Your task to perform on an android device: Do I have any events this weekend? Image 0: 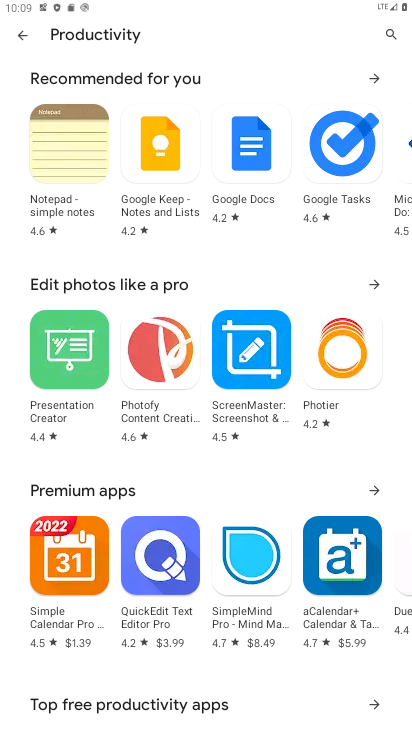
Step 0: press home button
Your task to perform on an android device: Do I have any events this weekend? Image 1: 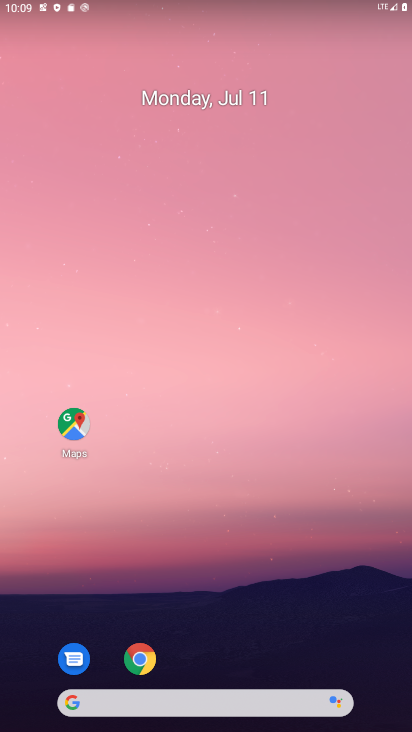
Step 1: drag from (204, 607) to (190, 94)
Your task to perform on an android device: Do I have any events this weekend? Image 2: 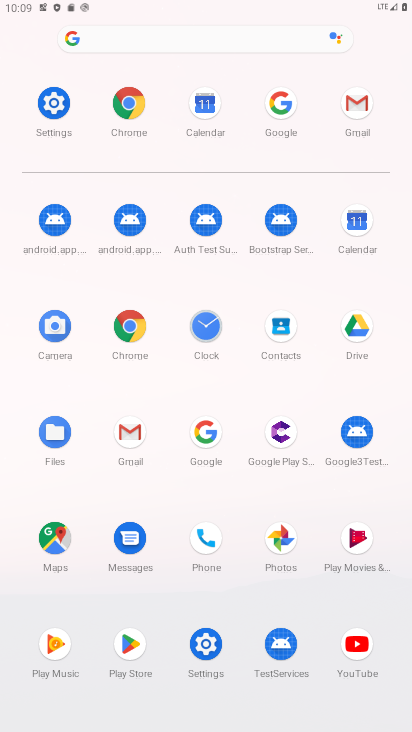
Step 2: click (363, 228)
Your task to perform on an android device: Do I have any events this weekend? Image 3: 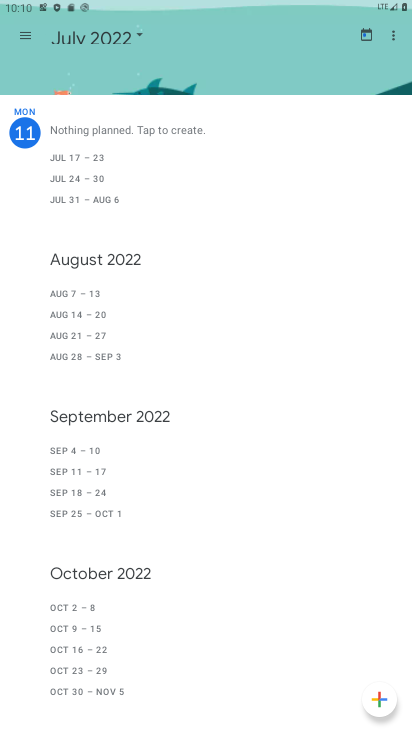
Step 3: click (128, 33)
Your task to perform on an android device: Do I have any events this weekend? Image 4: 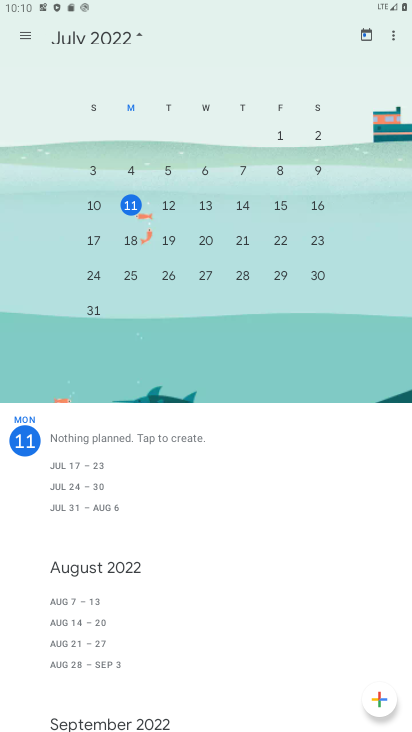
Step 4: click (284, 205)
Your task to perform on an android device: Do I have any events this weekend? Image 5: 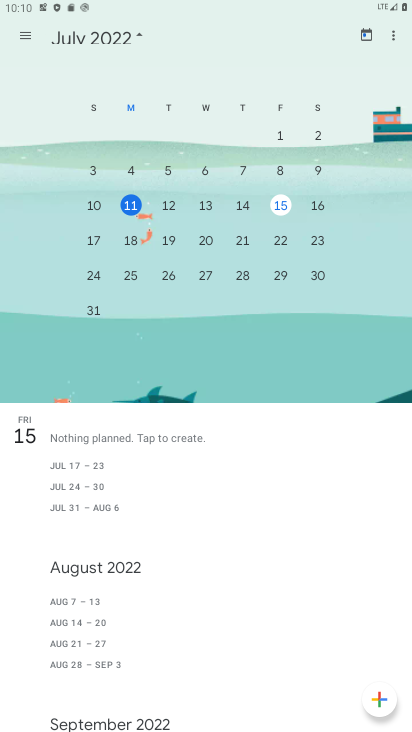
Step 5: click (284, 205)
Your task to perform on an android device: Do I have any events this weekend? Image 6: 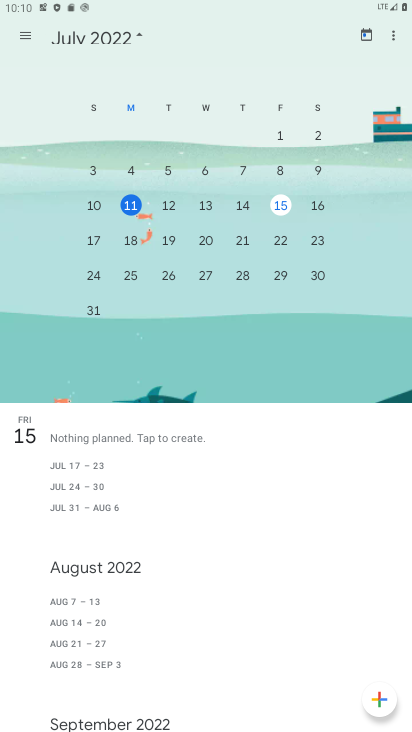
Step 6: click (284, 205)
Your task to perform on an android device: Do I have any events this weekend? Image 7: 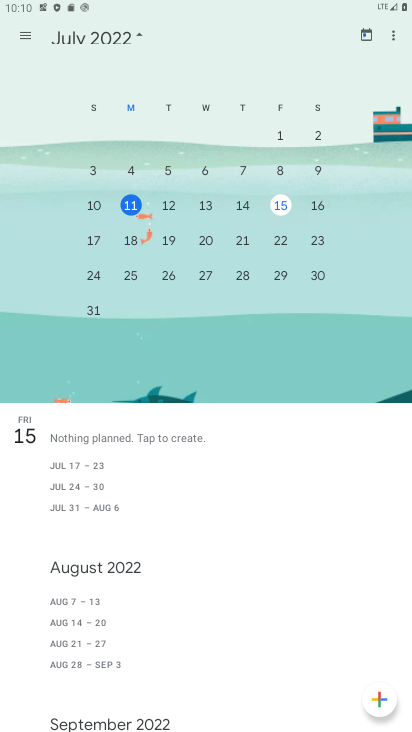
Step 7: click (284, 205)
Your task to perform on an android device: Do I have any events this weekend? Image 8: 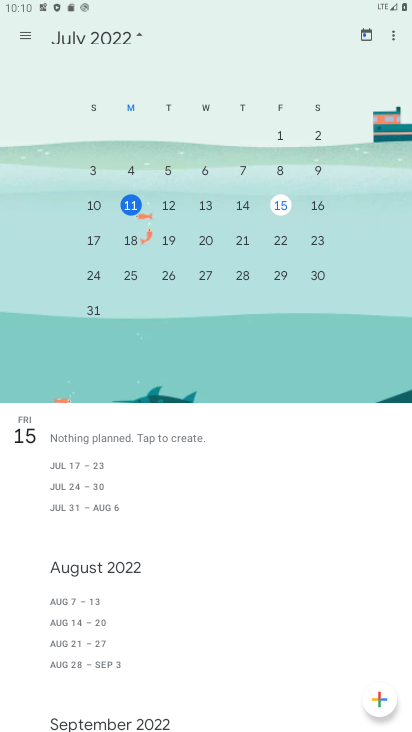
Step 8: click (284, 205)
Your task to perform on an android device: Do I have any events this weekend? Image 9: 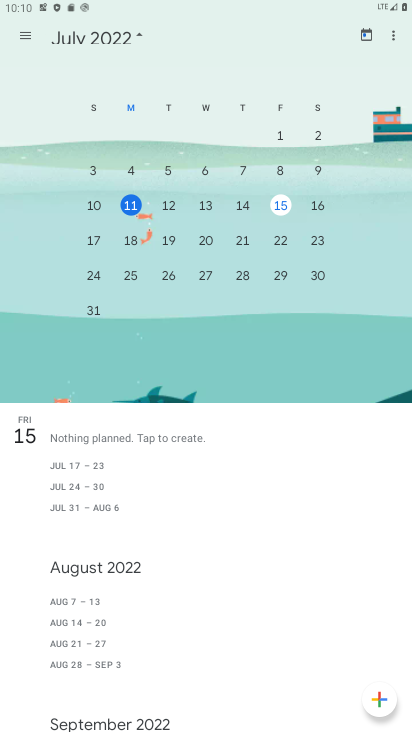
Step 9: click (286, 203)
Your task to perform on an android device: Do I have any events this weekend? Image 10: 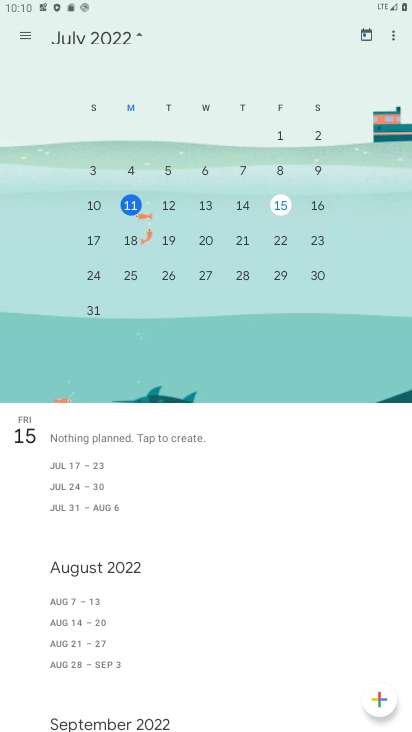
Step 10: task complete